Your task to perform on an android device: Open calendar and show me the fourth week of next month Image 0: 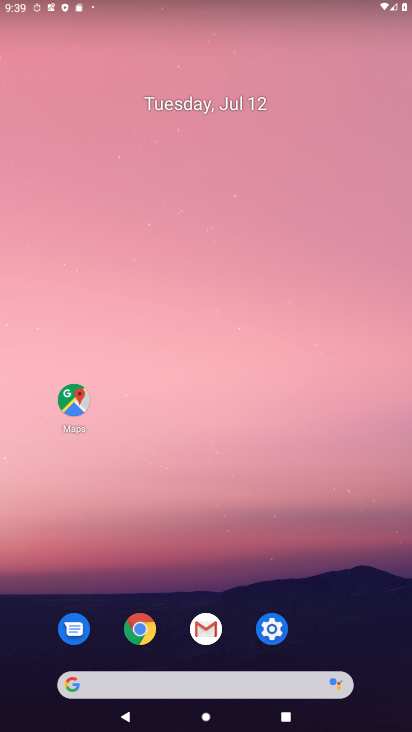
Step 0: drag from (278, 695) to (379, 170)
Your task to perform on an android device: Open calendar and show me the fourth week of next month Image 1: 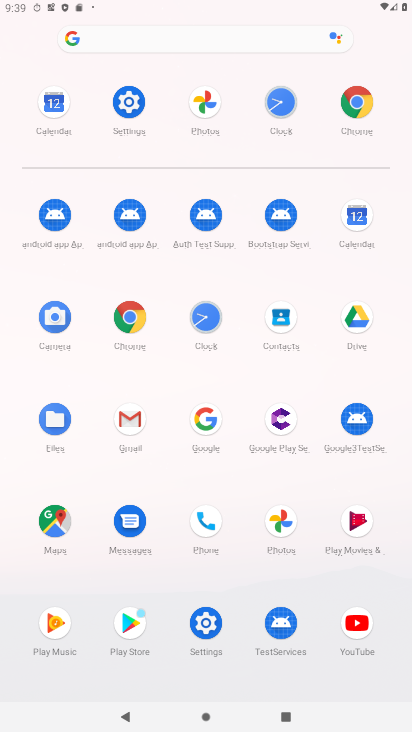
Step 1: click (350, 226)
Your task to perform on an android device: Open calendar and show me the fourth week of next month Image 2: 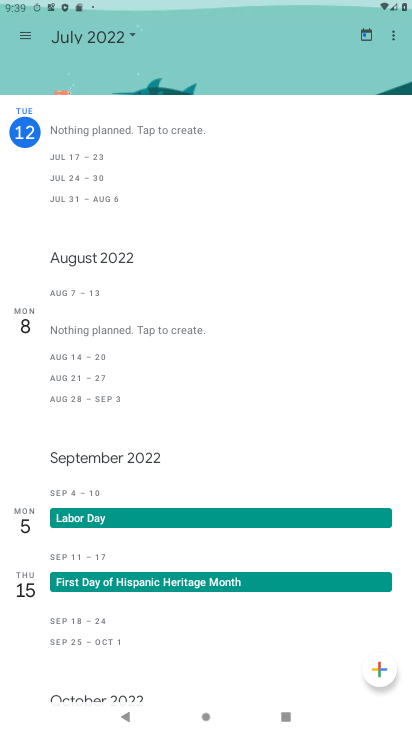
Step 2: click (26, 35)
Your task to perform on an android device: Open calendar and show me the fourth week of next month Image 3: 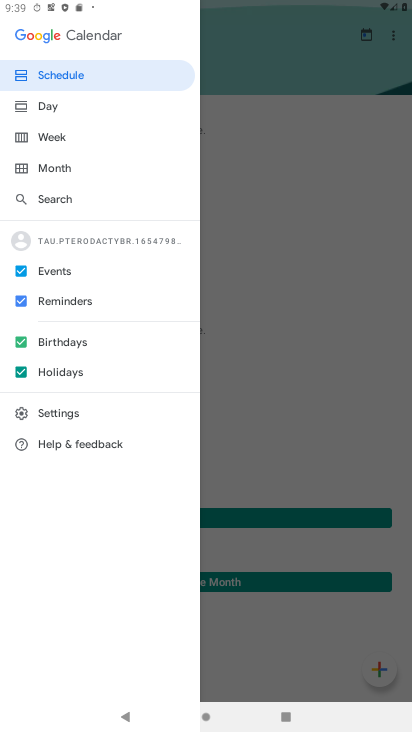
Step 3: click (80, 171)
Your task to perform on an android device: Open calendar and show me the fourth week of next month Image 4: 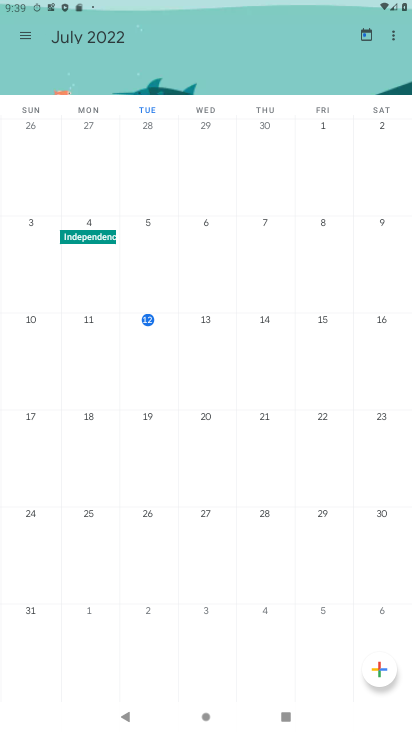
Step 4: drag from (387, 373) to (0, 396)
Your task to perform on an android device: Open calendar and show me the fourth week of next month Image 5: 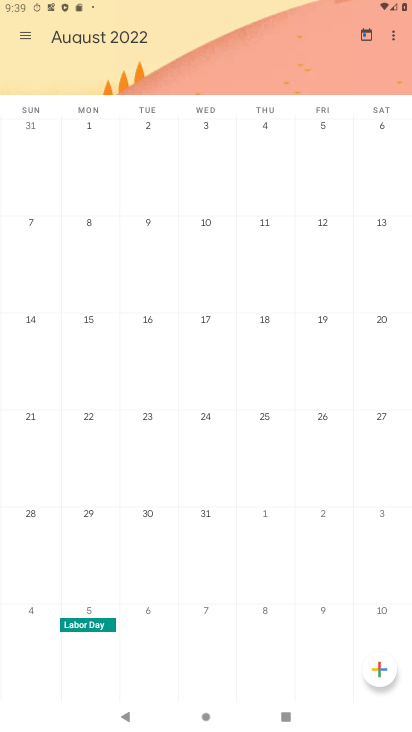
Step 5: click (81, 436)
Your task to perform on an android device: Open calendar and show me the fourth week of next month Image 6: 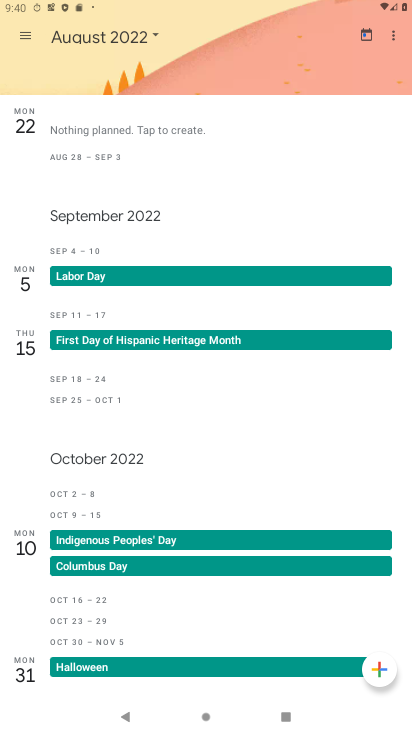
Step 6: task complete